Your task to perform on an android device: Search for the best rated kitchen reno kits on Lowes.com Image 0: 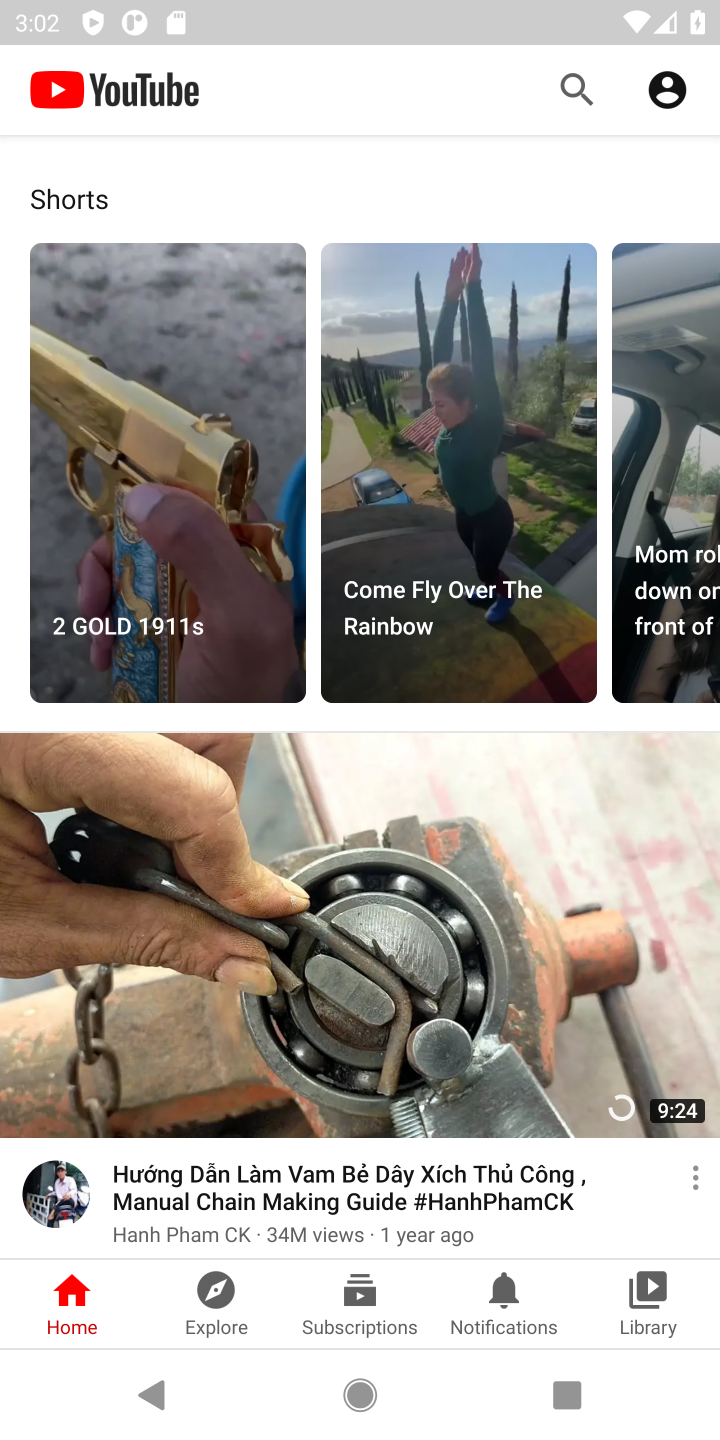
Step 0: press home button
Your task to perform on an android device: Search for the best rated kitchen reno kits on Lowes.com Image 1: 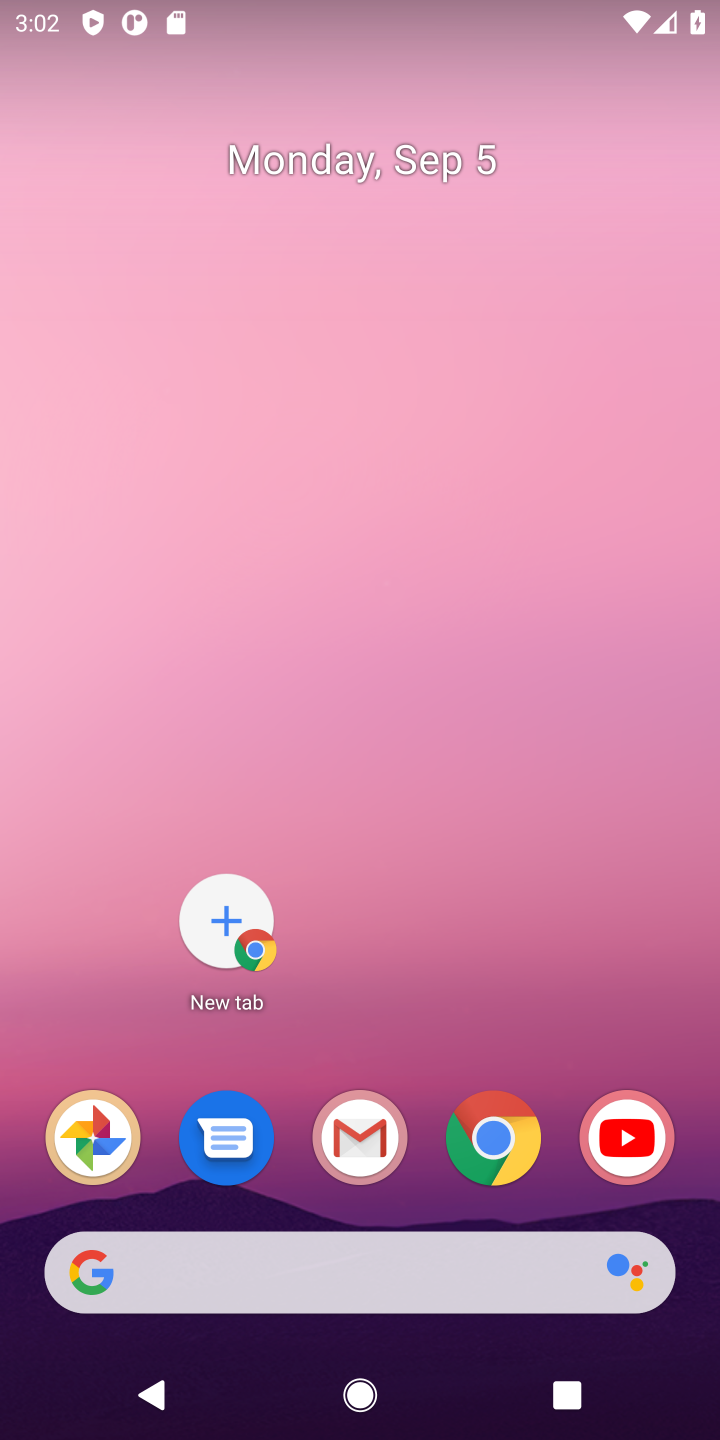
Step 1: click (525, 1147)
Your task to perform on an android device: Search for the best rated kitchen reno kits on Lowes.com Image 2: 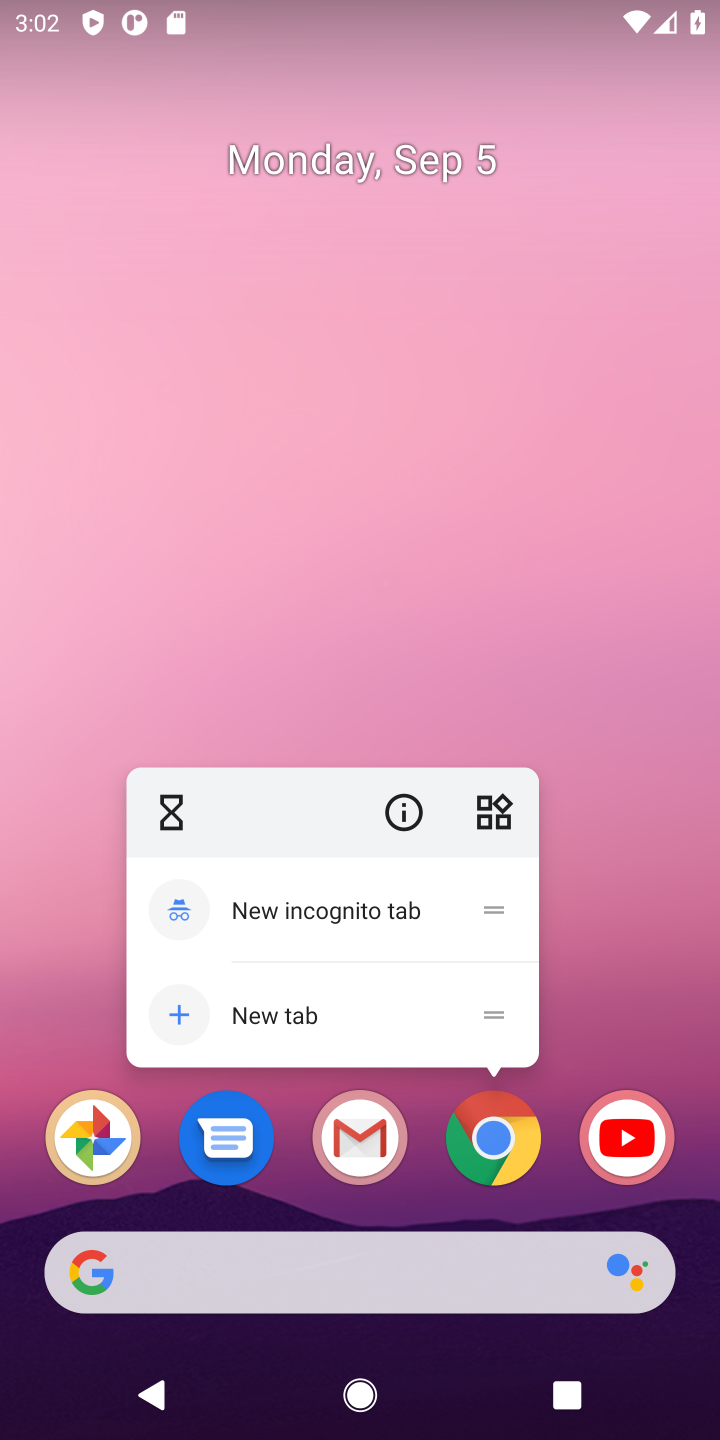
Step 2: click (516, 1131)
Your task to perform on an android device: Search for the best rated kitchen reno kits on Lowes.com Image 3: 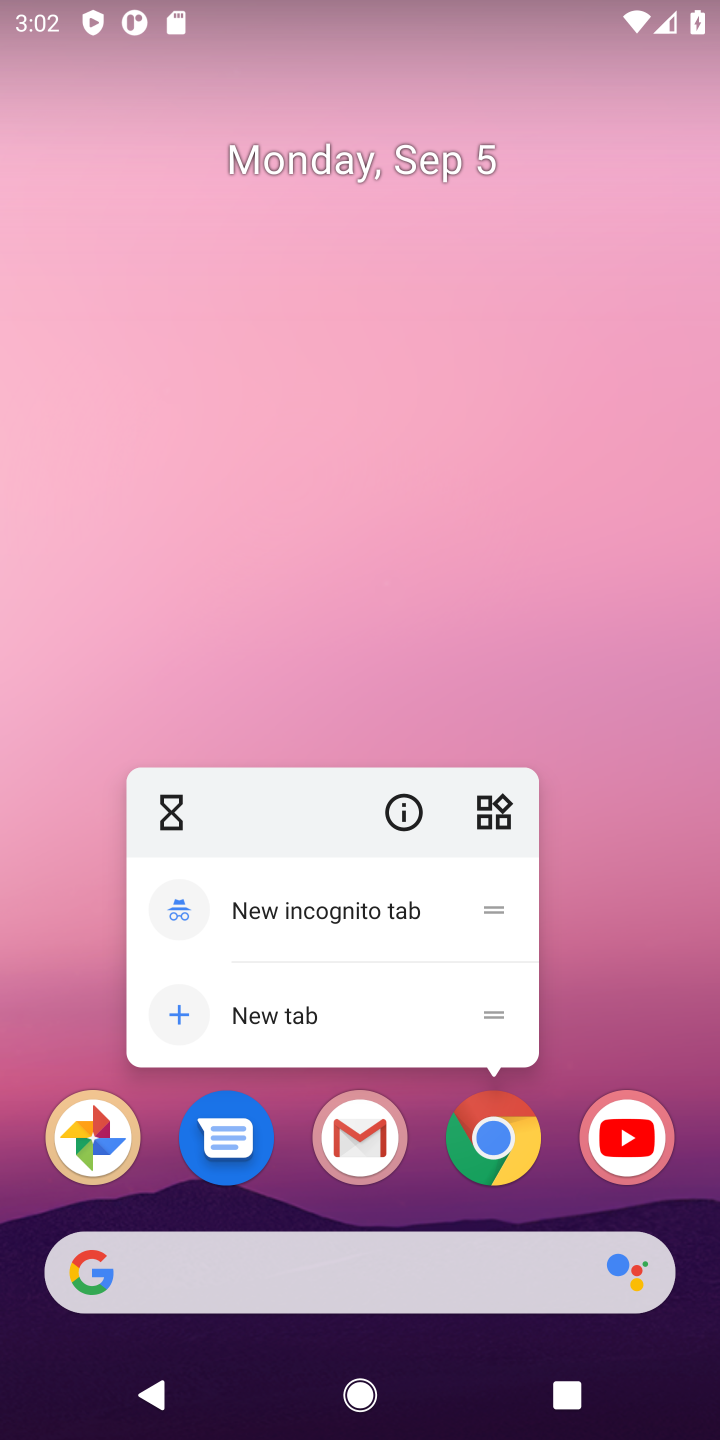
Step 3: click (497, 1142)
Your task to perform on an android device: Search for the best rated kitchen reno kits on Lowes.com Image 4: 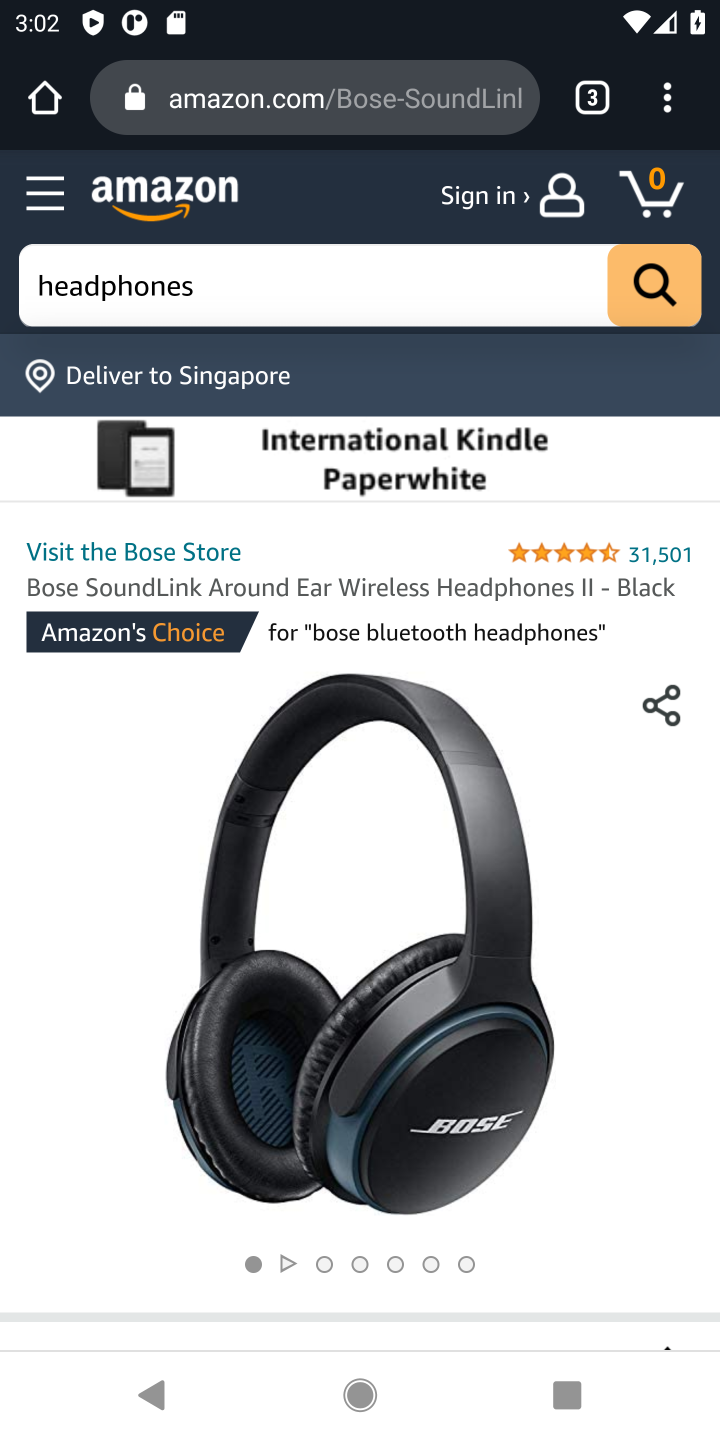
Step 4: click (183, 95)
Your task to perform on an android device: Search for the best rated kitchen reno kits on Lowes.com Image 5: 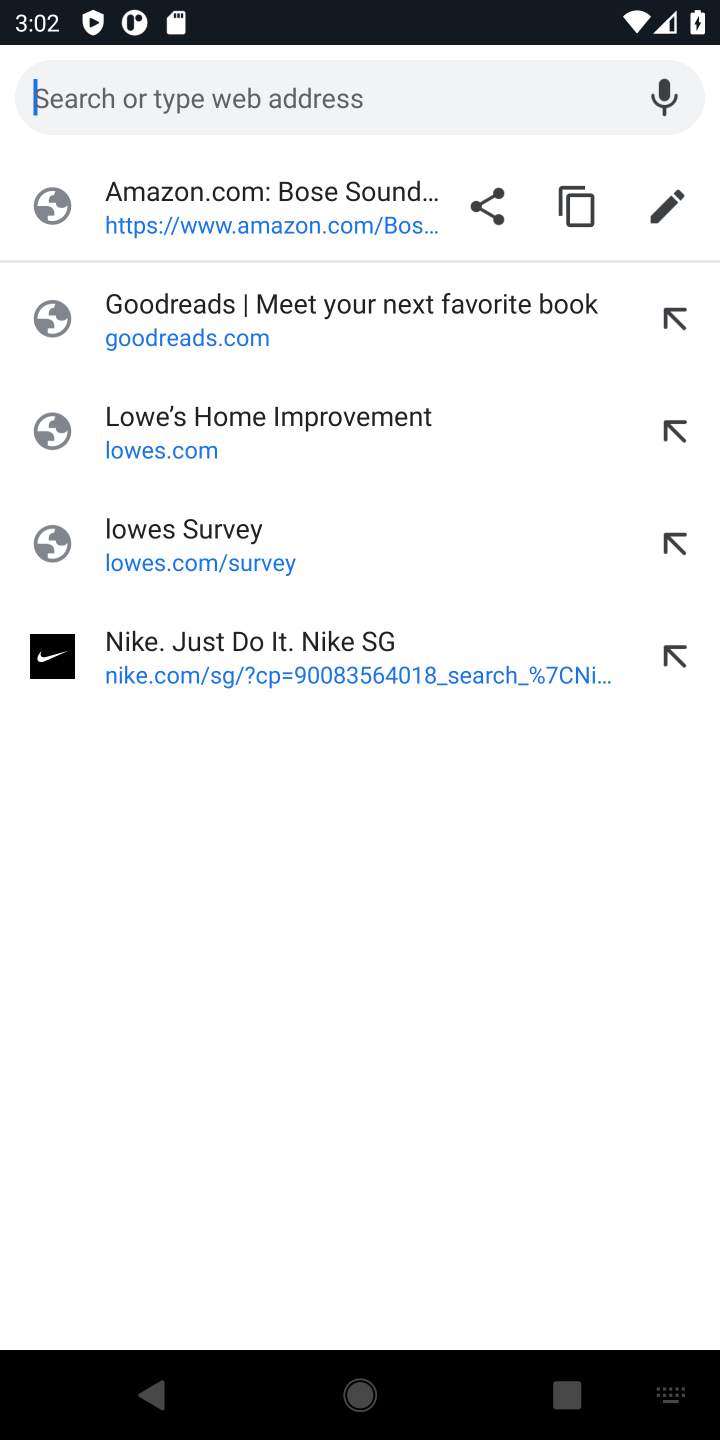
Step 5: type "lowes.com"
Your task to perform on an android device: Search for the best rated kitchen reno kits on Lowes.com Image 6: 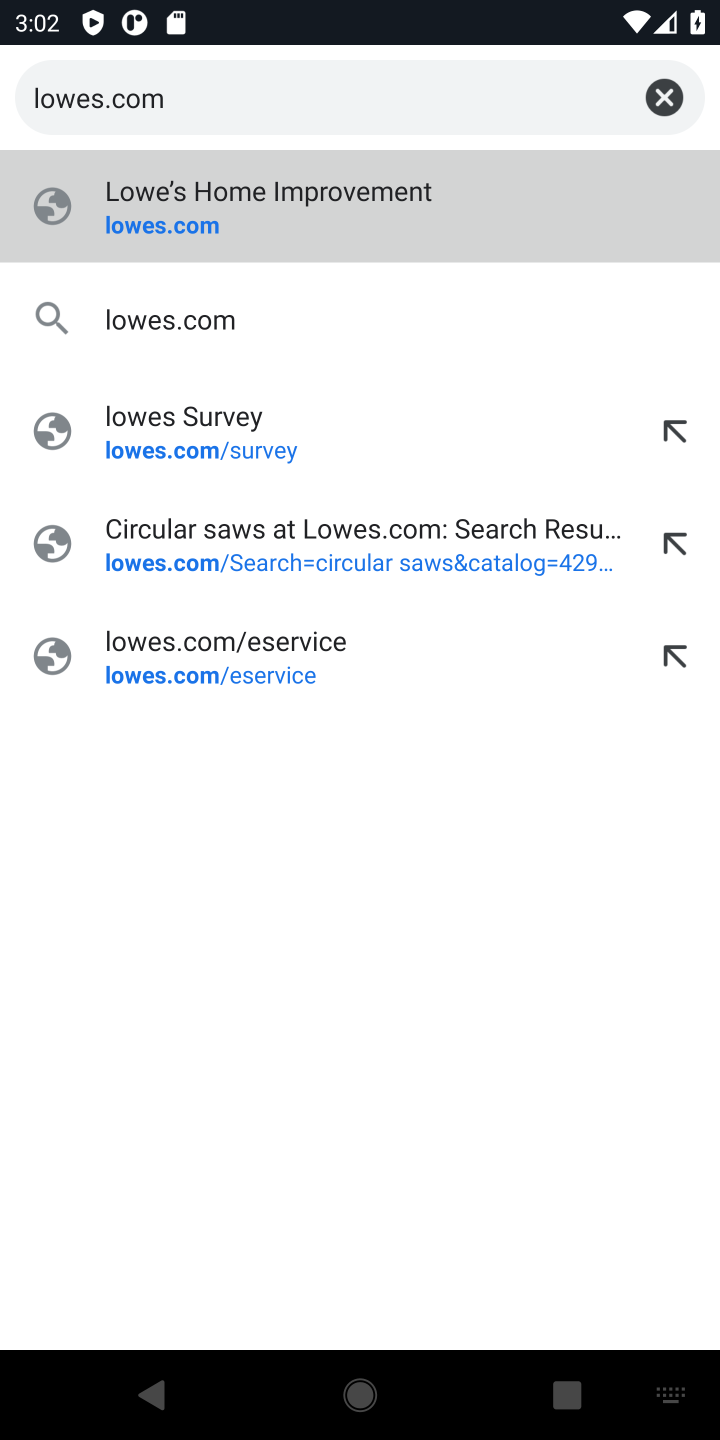
Step 6: click (164, 234)
Your task to perform on an android device: Search for the best rated kitchen reno kits on Lowes.com Image 7: 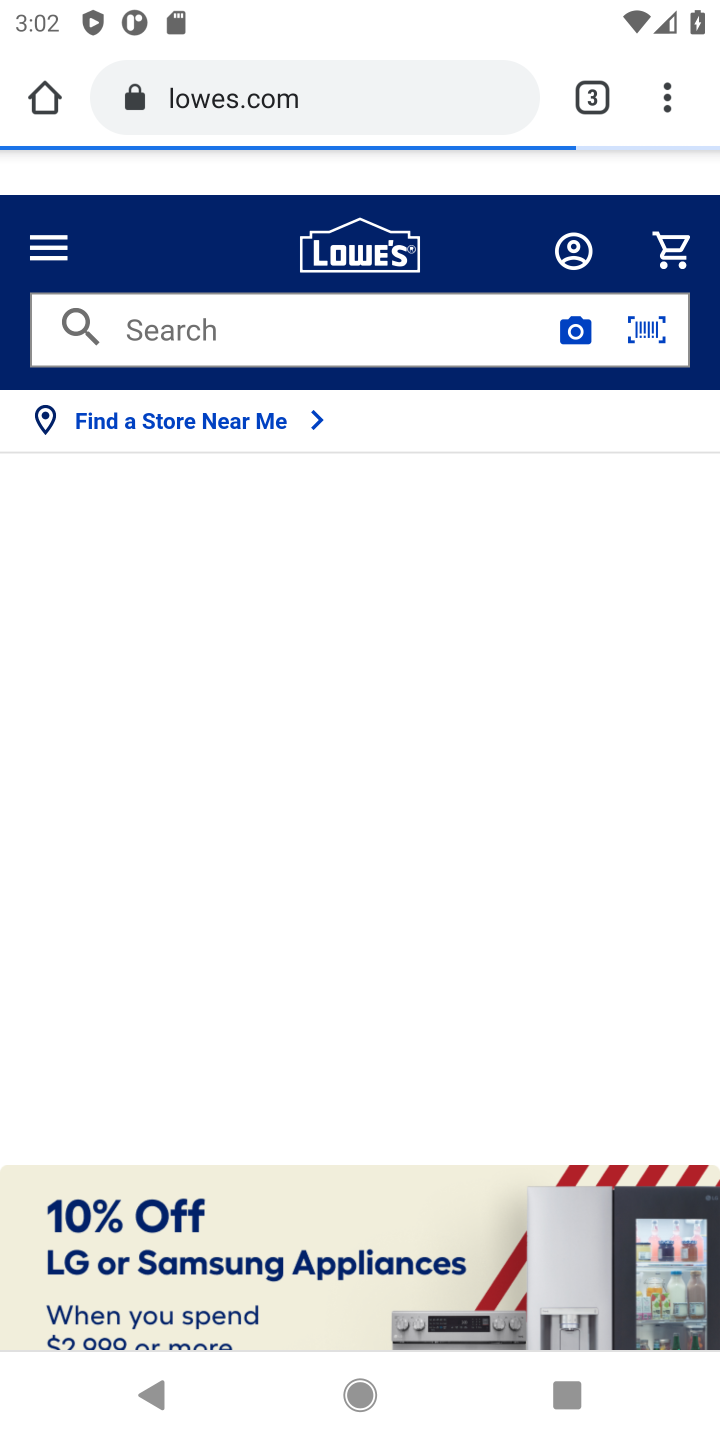
Step 7: click (243, 334)
Your task to perform on an android device: Search for the best rated kitchen reno kits on Lowes.com Image 8: 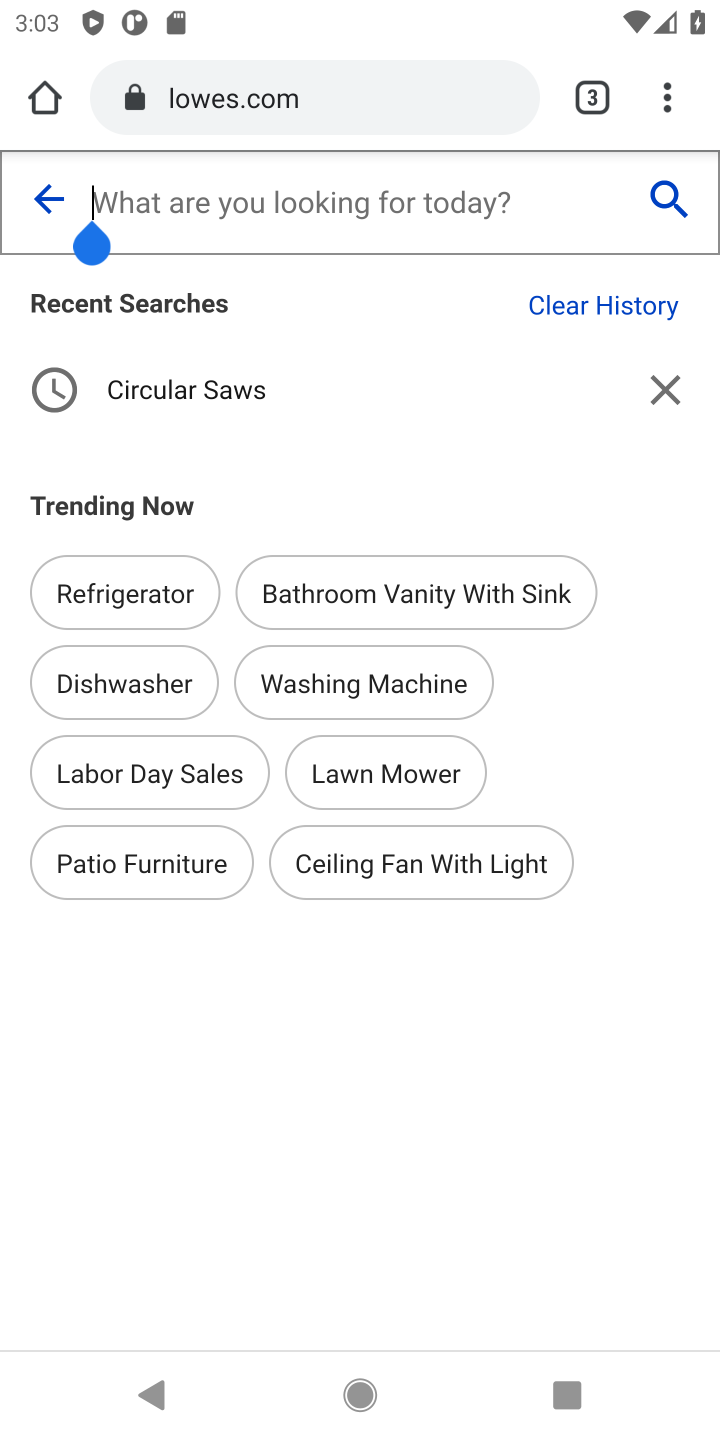
Step 8: type "kitchen reno kits"
Your task to perform on an android device: Search for the best rated kitchen reno kits on Lowes.com Image 9: 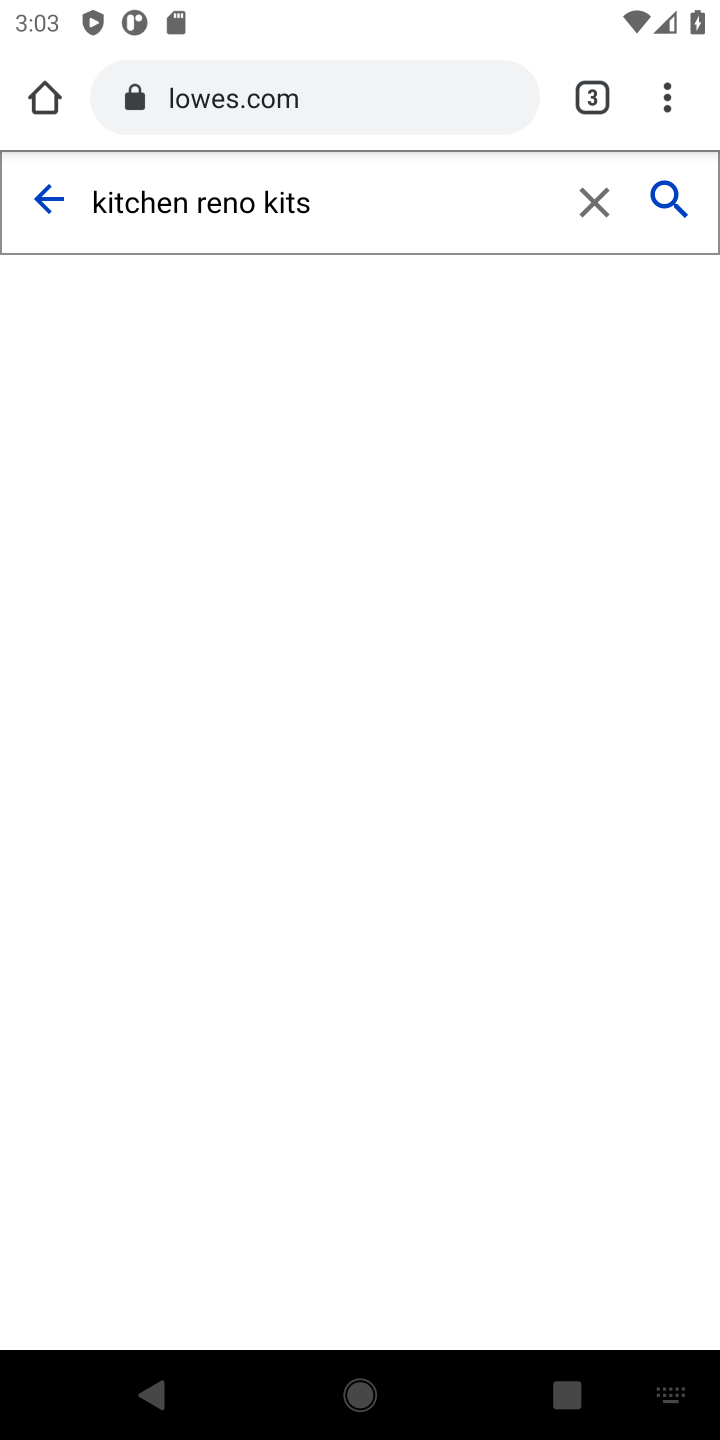
Step 9: type ""
Your task to perform on an android device: Search for the best rated kitchen reno kits on Lowes.com Image 10: 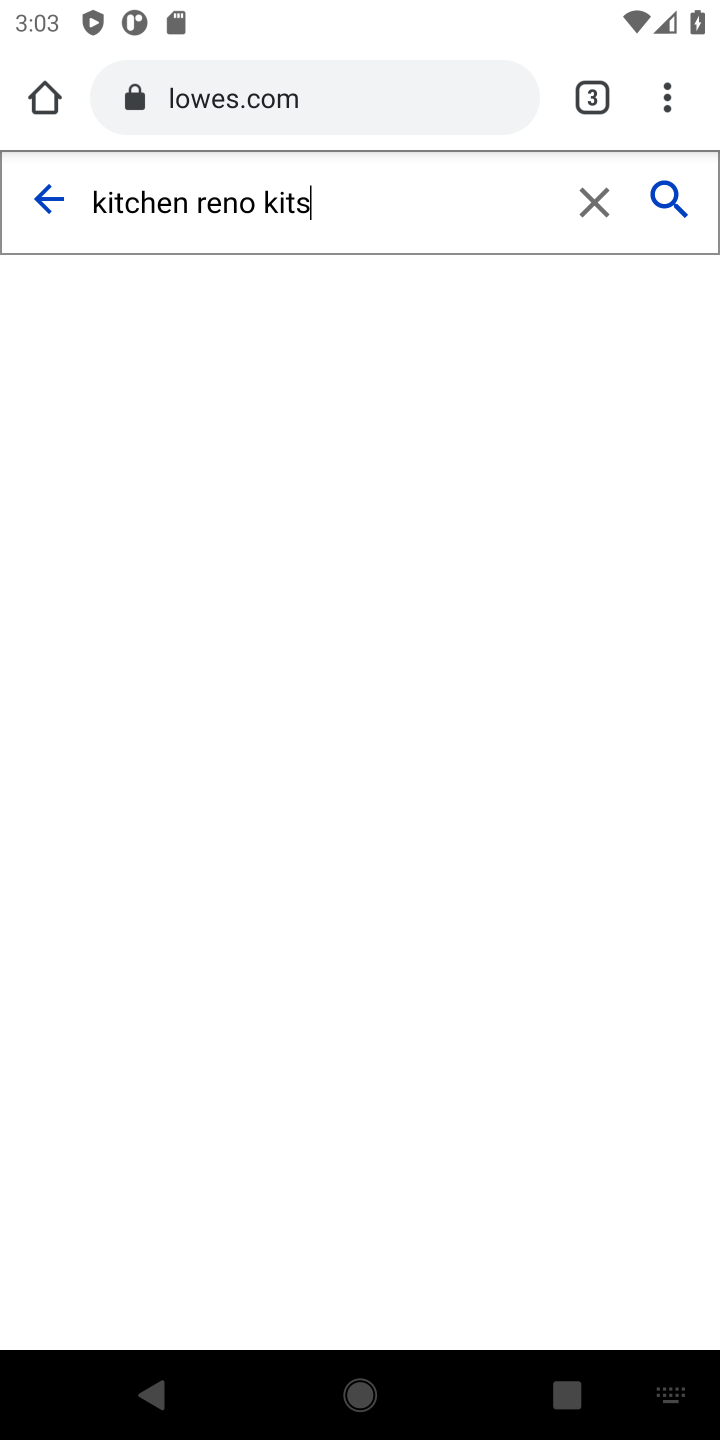
Step 10: press enter
Your task to perform on an android device: Search for the best rated kitchen reno kits on Lowes.com Image 11: 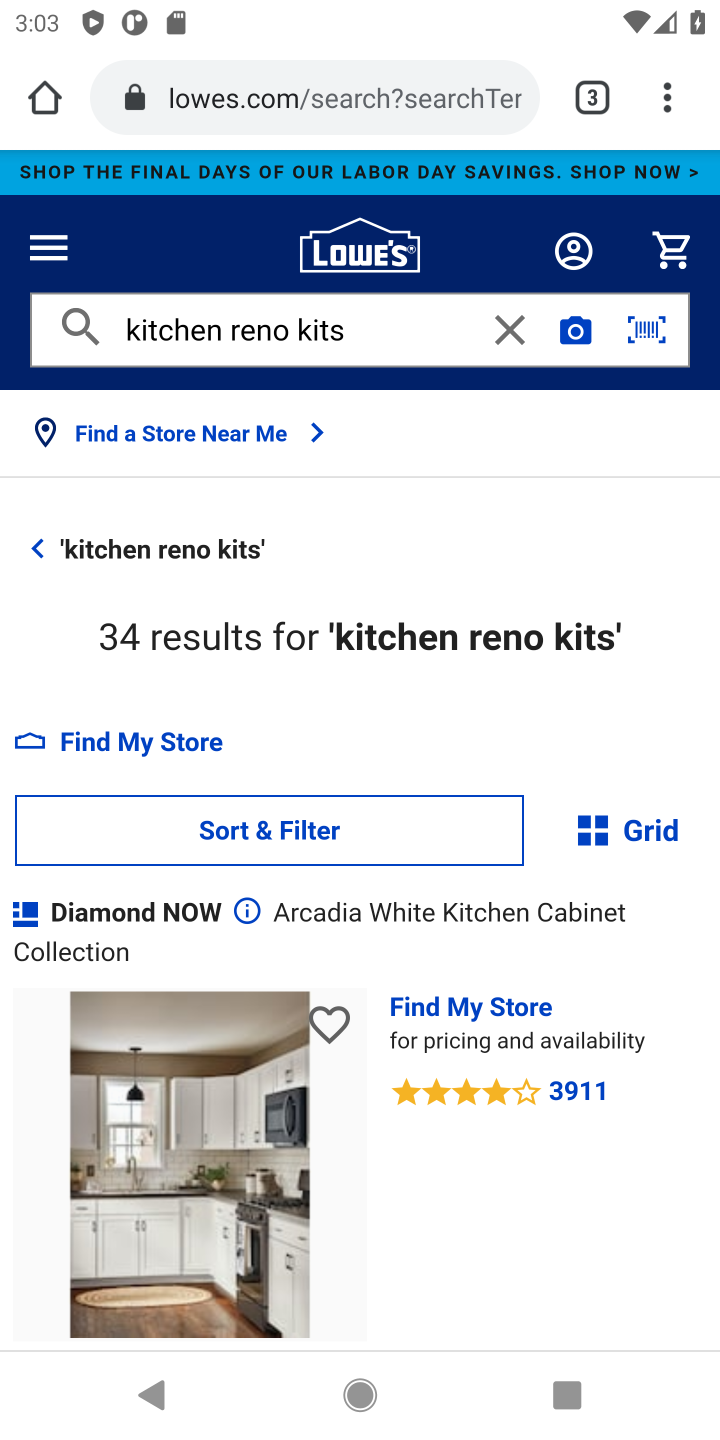
Step 11: click (300, 822)
Your task to perform on an android device: Search for the best rated kitchen reno kits on Lowes.com Image 12: 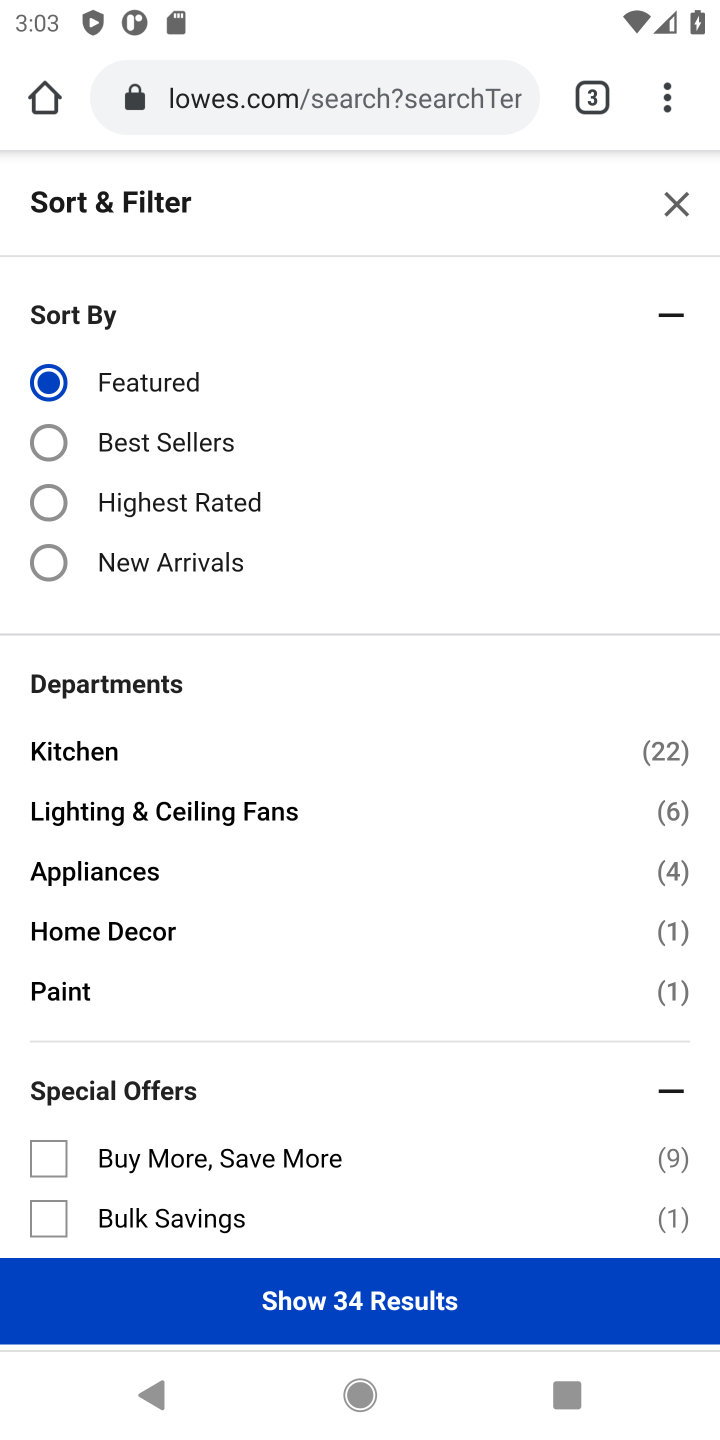
Step 12: click (453, 750)
Your task to perform on an android device: Search for the best rated kitchen reno kits on Lowes.com Image 13: 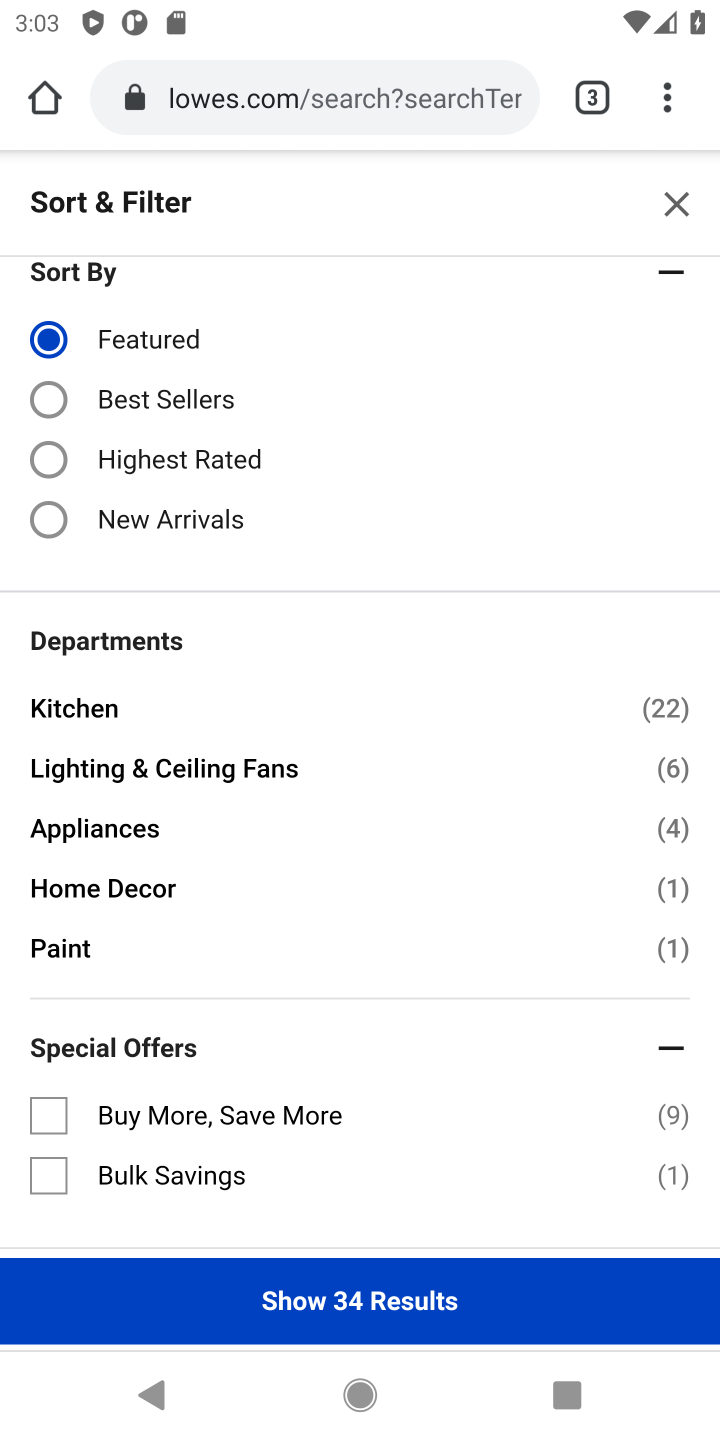
Step 13: click (40, 467)
Your task to perform on an android device: Search for the best rated kitchen reno kits on Lowes.com Image 14: 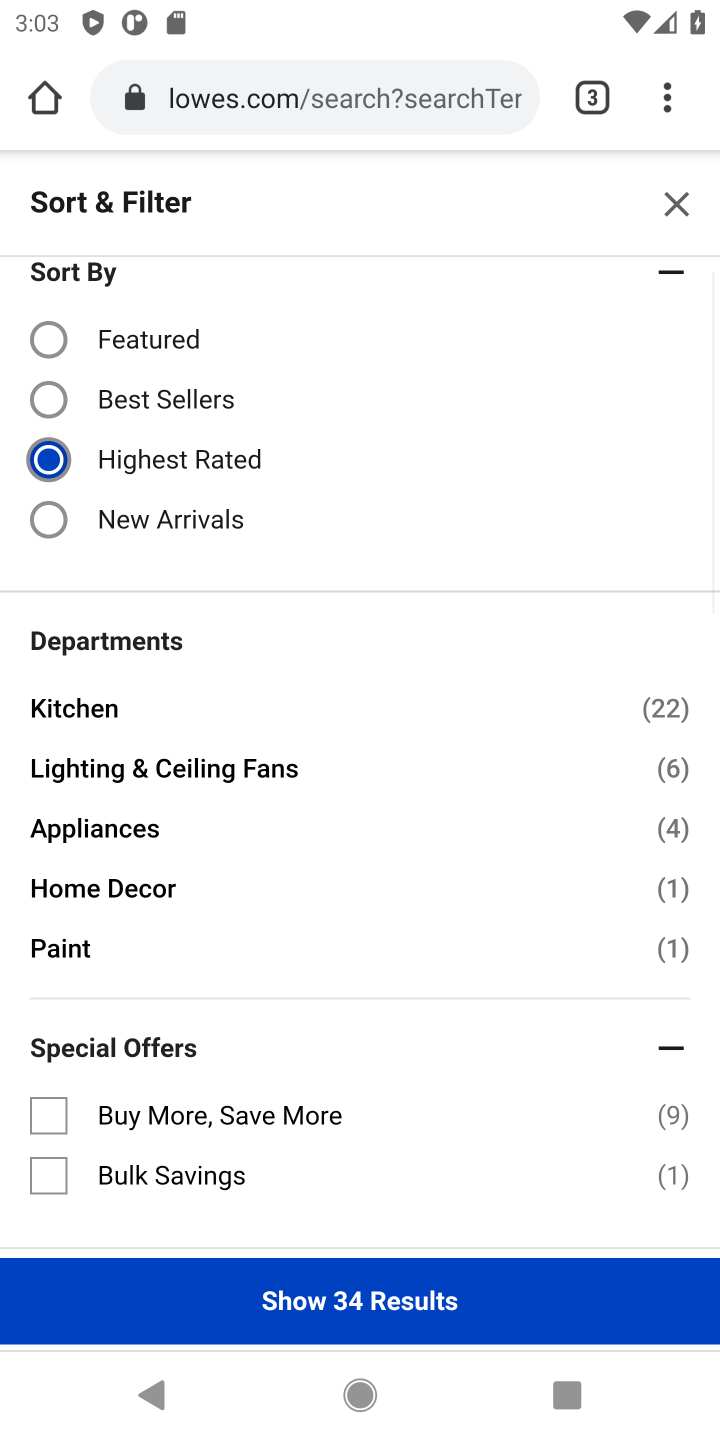
Step 14: drag from (434, 634) to (434, 559)
Your task to perform on an android device: Search for the best rated kitchen reno kits on Lowes.com Image 15: 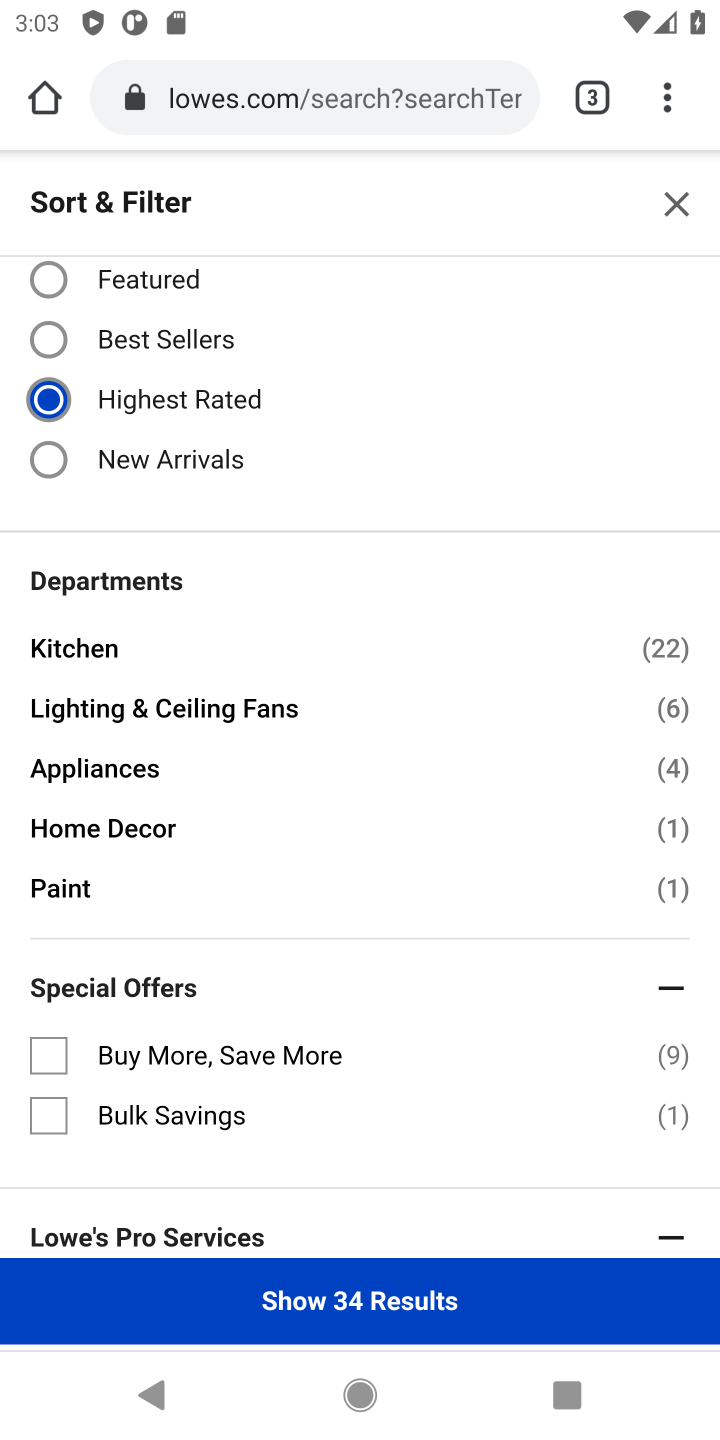
Step 15: drag from (391, 1025) to (398, 602)
Your task to perform on an android device: Search for the best rated kitchen reno kits on Lowes.com Image 16: 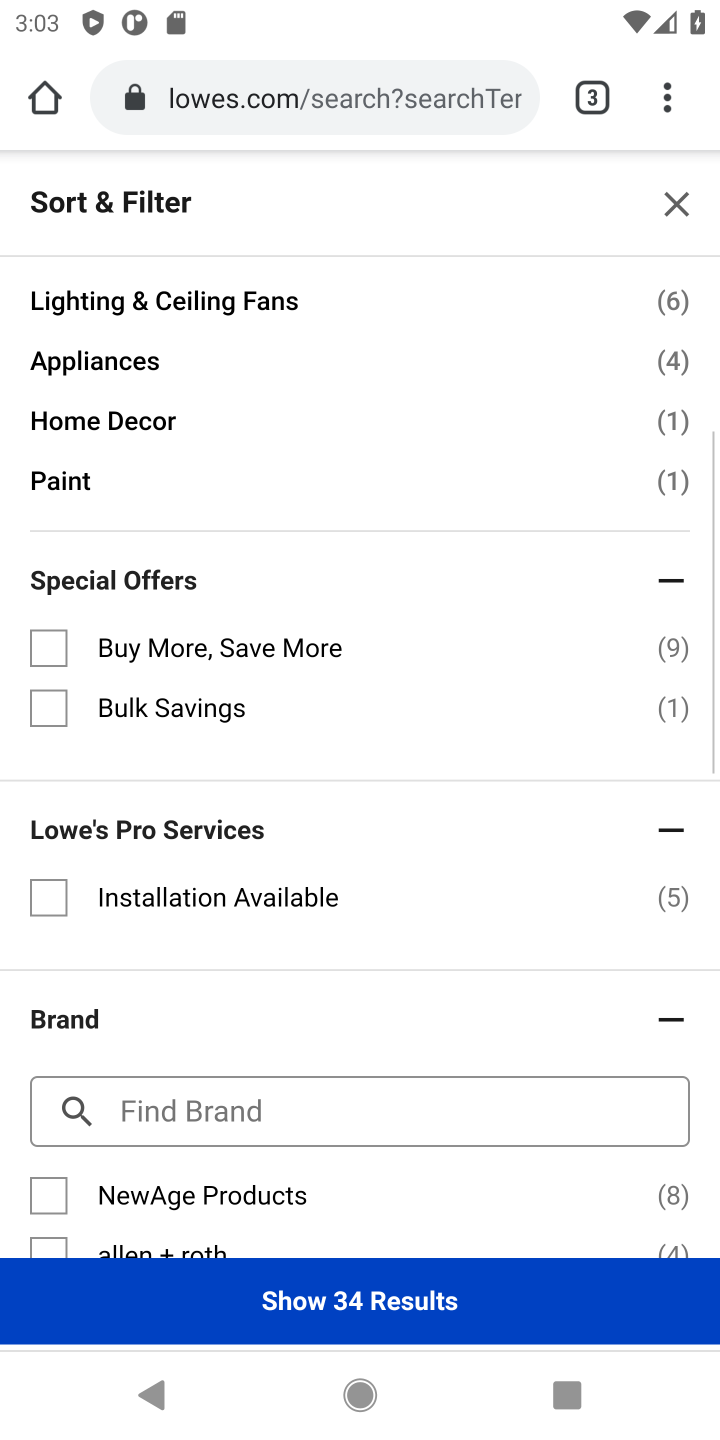
Step 16: drag from (428, 864) to (423, 491)
Your task to perform on an android device: Search for the best rated kitchen reno kits on Lowes.com Image 17: 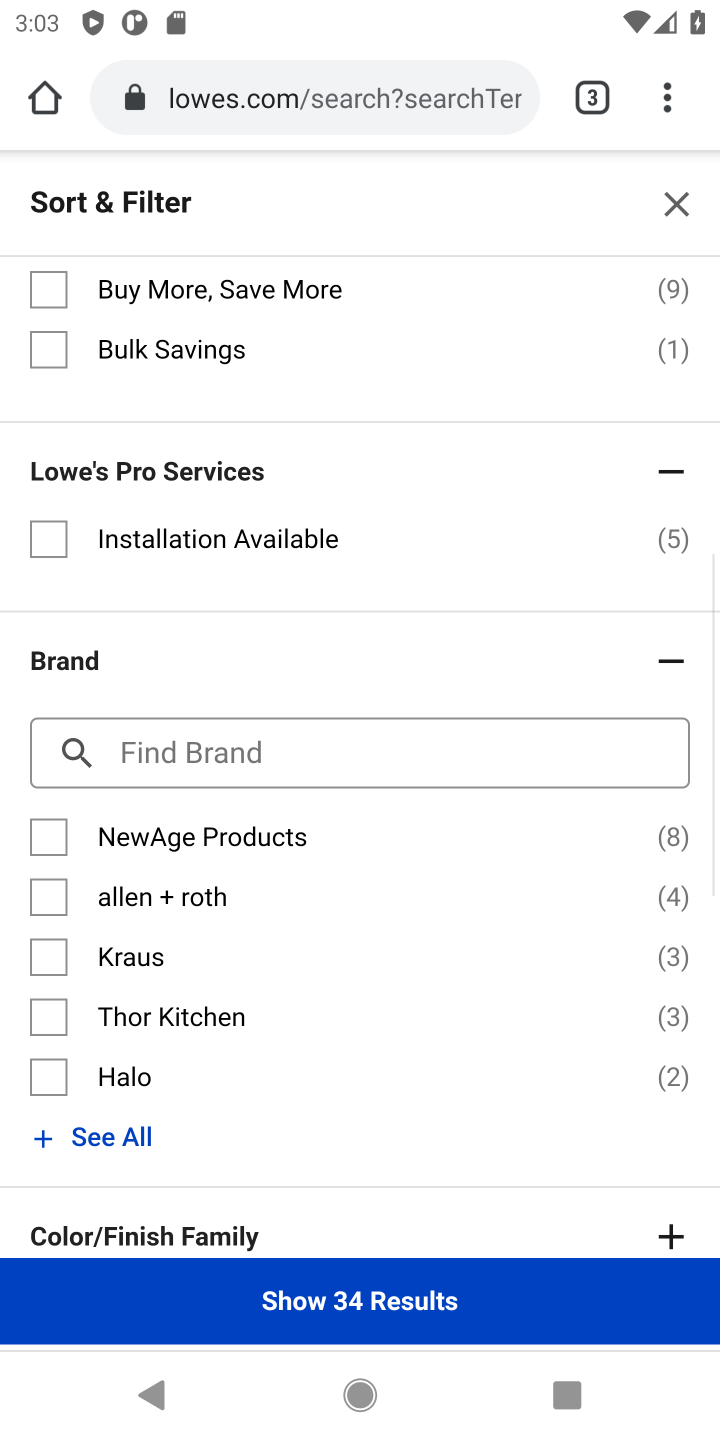
Step 17: drag from (375, 1022) to (413, 498)
Your task to perform on an android device: Search for the best rated kitchen reno kits on Lowes.com Image 18: 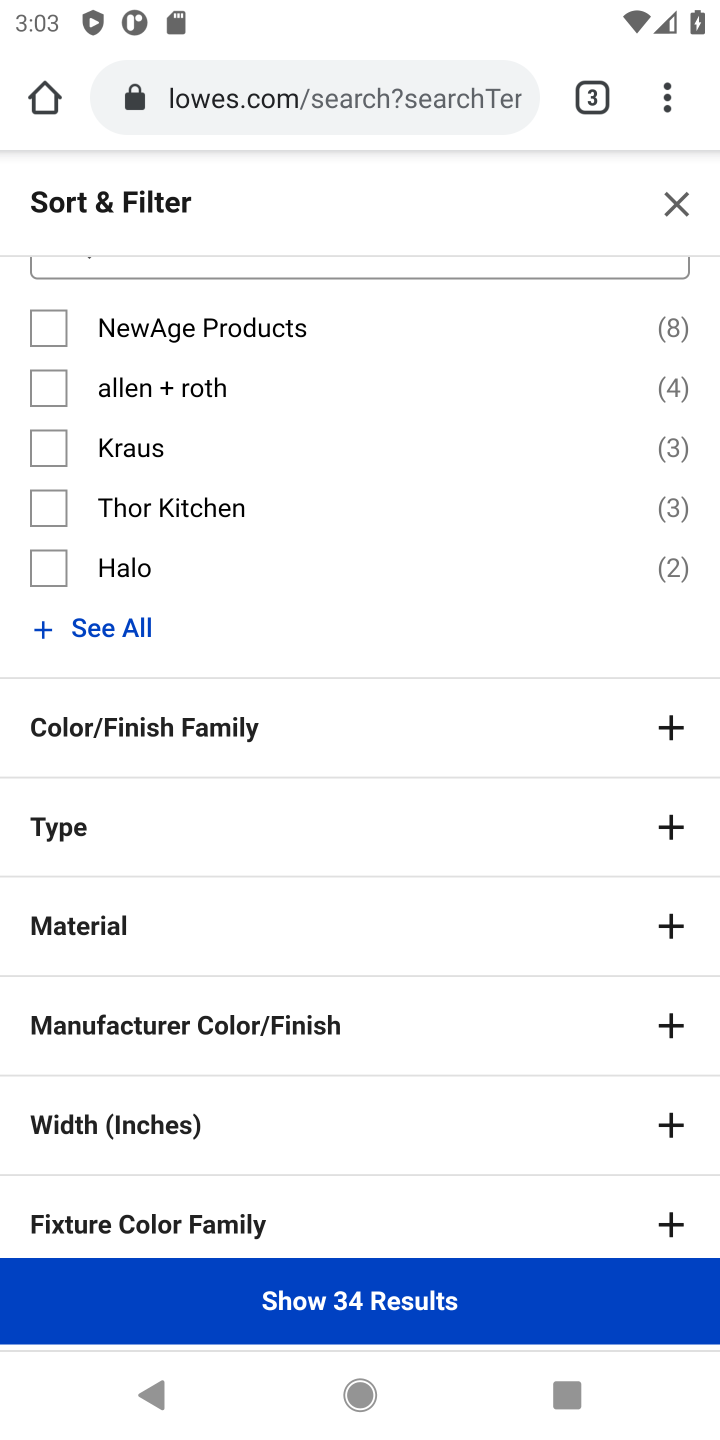
Step 18: drag from (368, 957) to (392, 581)
Your task to perform on an android device: Search for the best rated kitchen reno kits on Lowes.com Image 19: 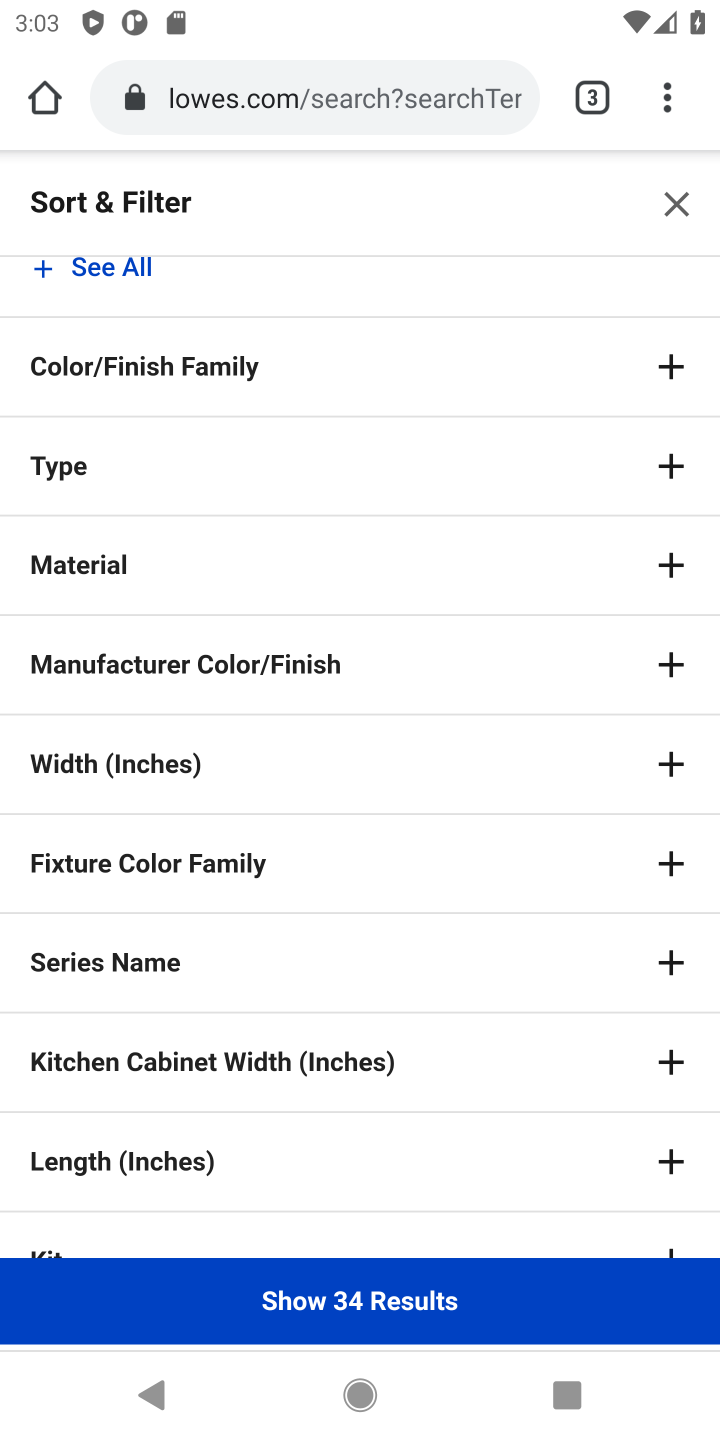
Step 19: drag from (406, 964) to (398, 423)
Your task to perform on an android device: Search for the best rated kitchen reno kits on Lowes.com Image 20: 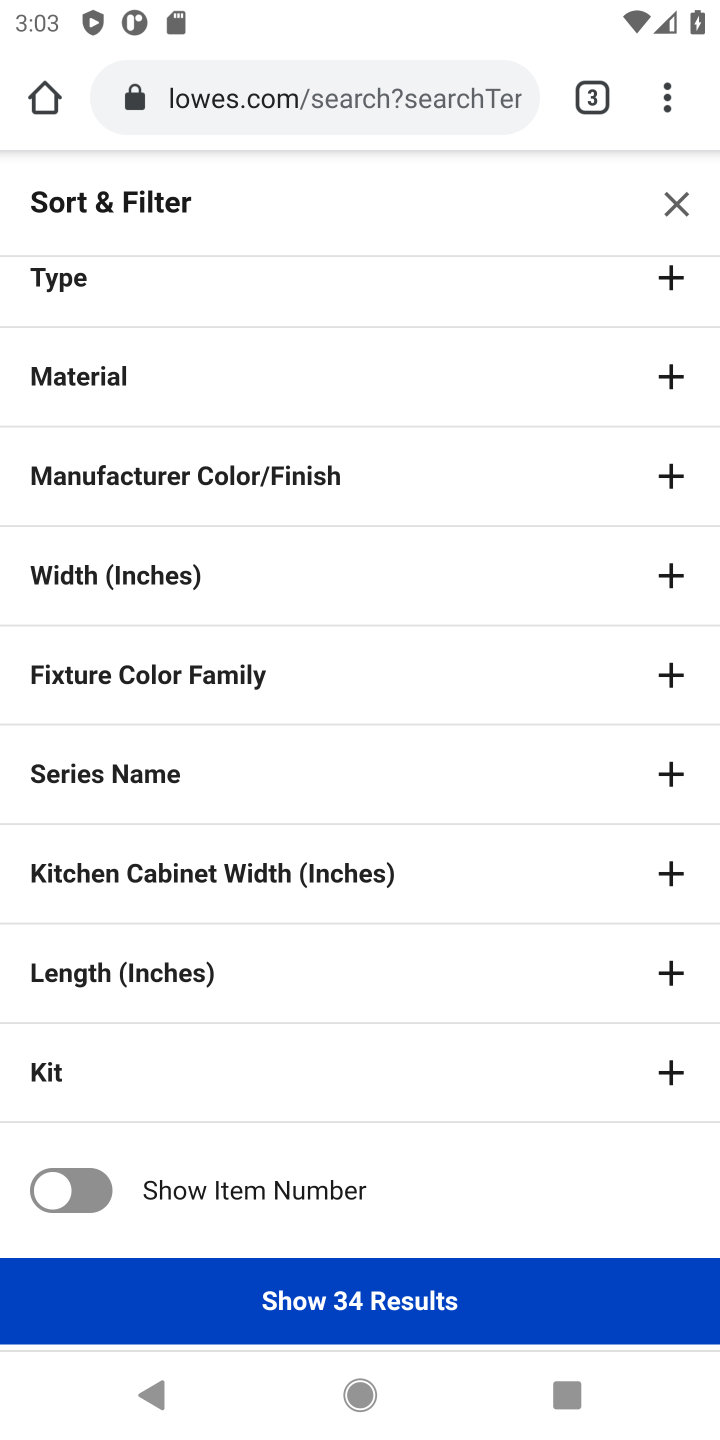
Step 20: drag from (435, 1112) to (440, 534)
Your task to perform on an android device: Search for the best rated kitchen reno kits on Lowes.com Image 21: 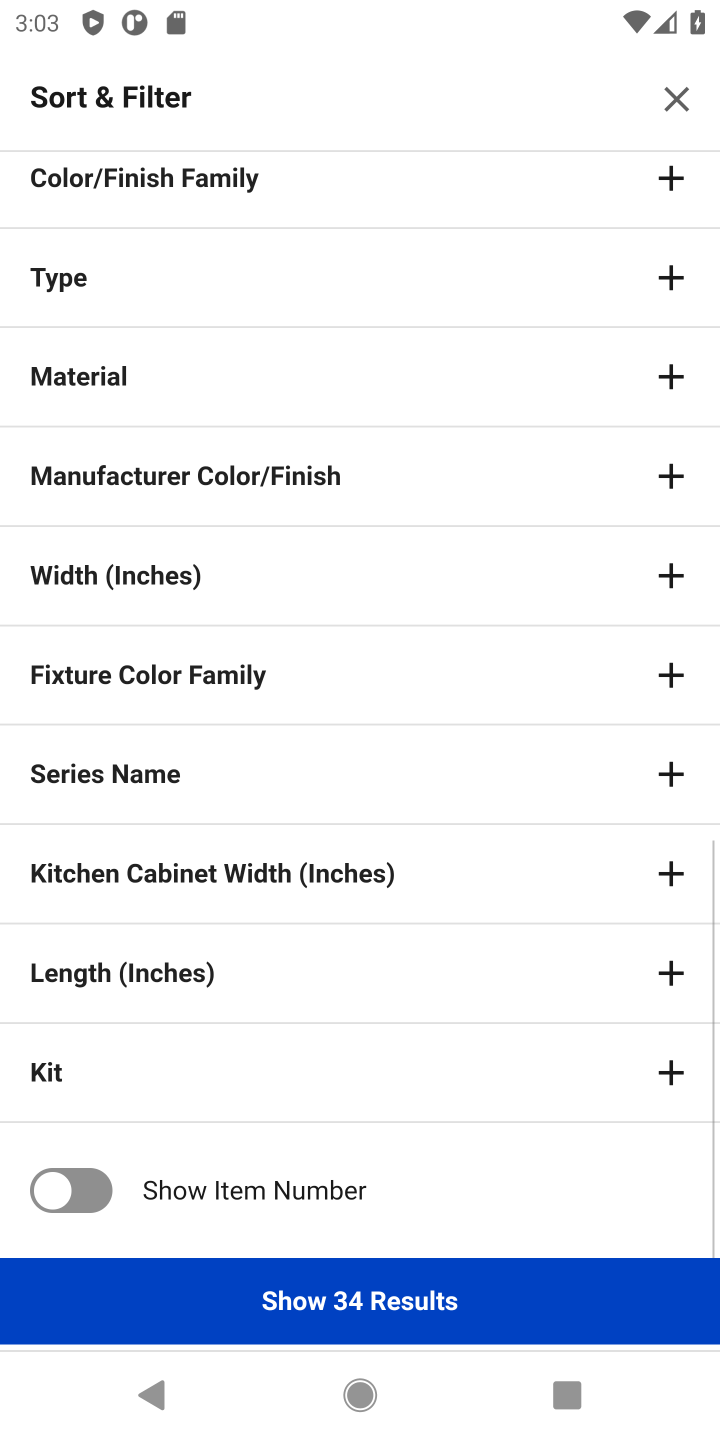
Step 21: click (383, 1201)
Your task to perform on an android device: Search for the best rated kitchen reno kits on Lowes.com Image 22: 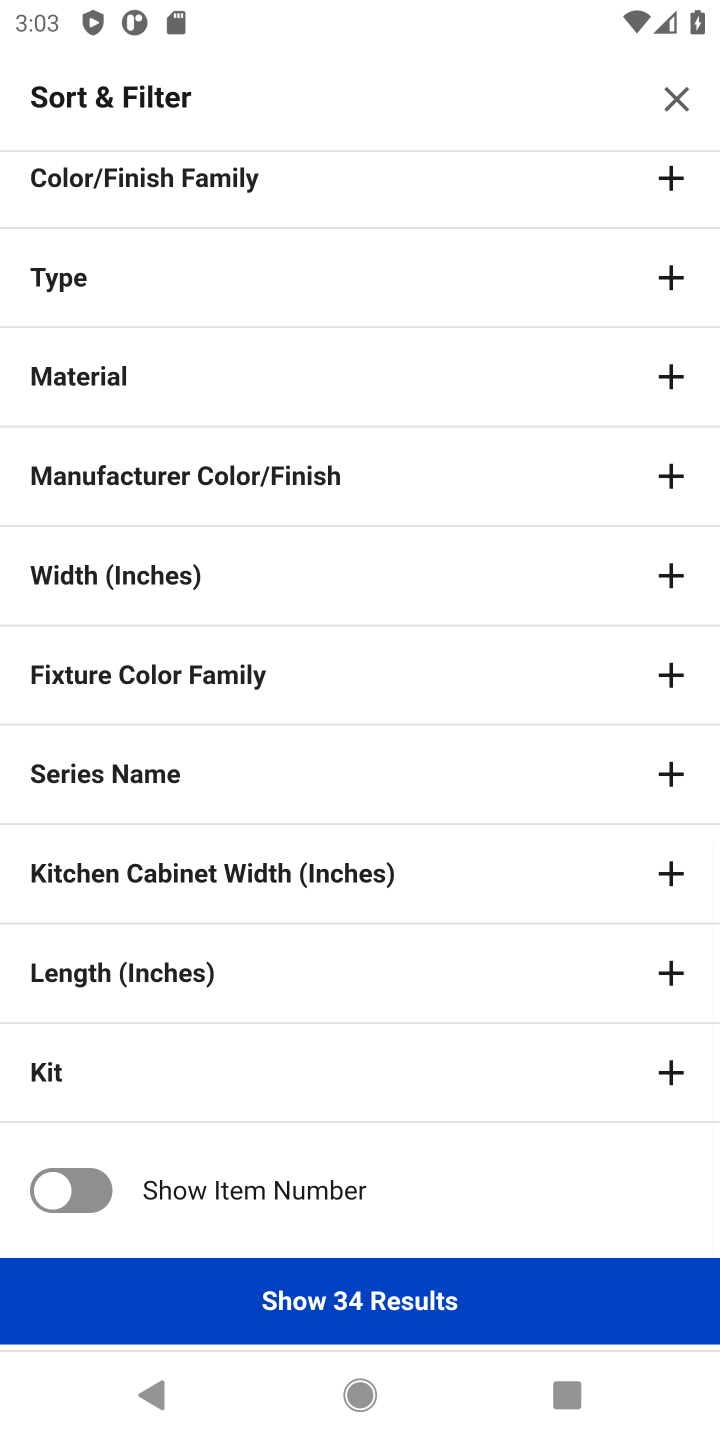
Step 22: click (415, 1291)
Your task to perform on an android device: Search for the best rated kitchen reno kits on Lowes.com Image 23: 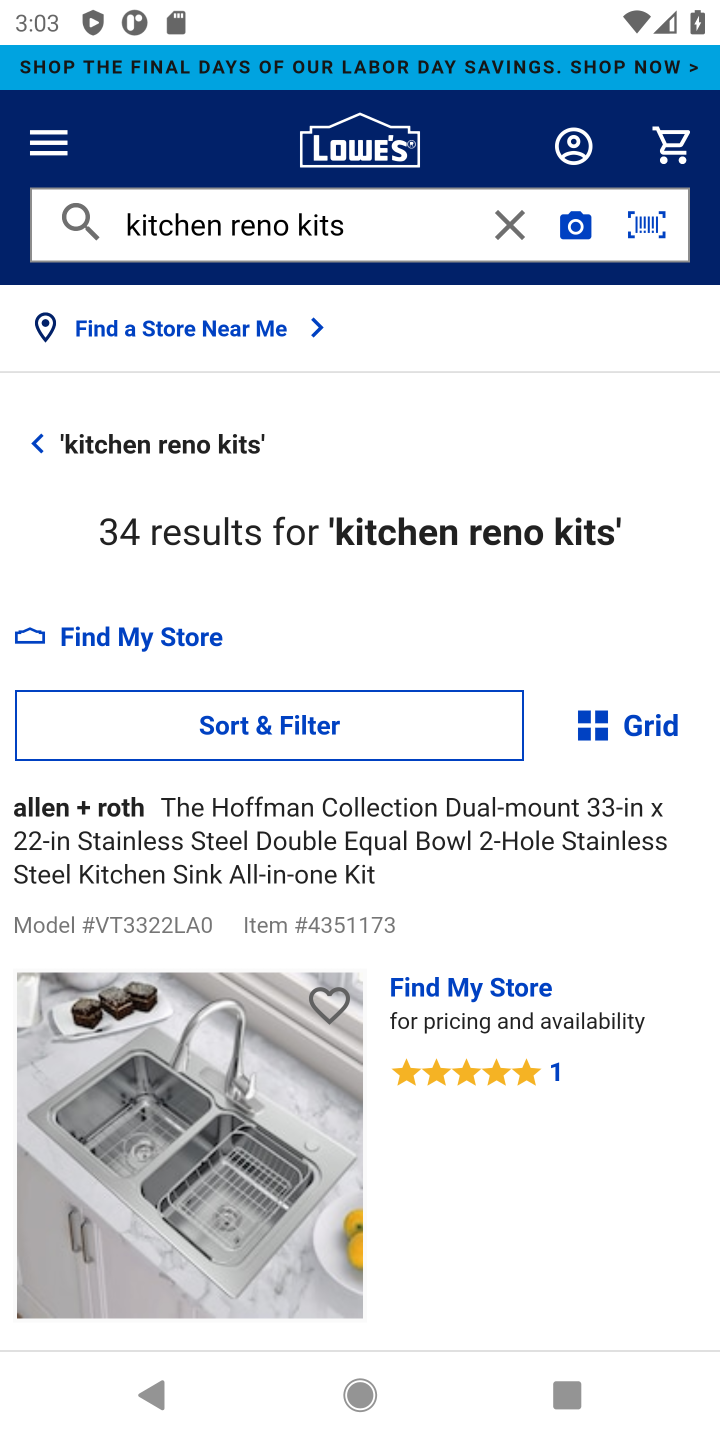
Step 23: click (511, 865)
Your task to perform on an android device: Search for the best rated kitchen reno kits on Lowes.com Image 24: 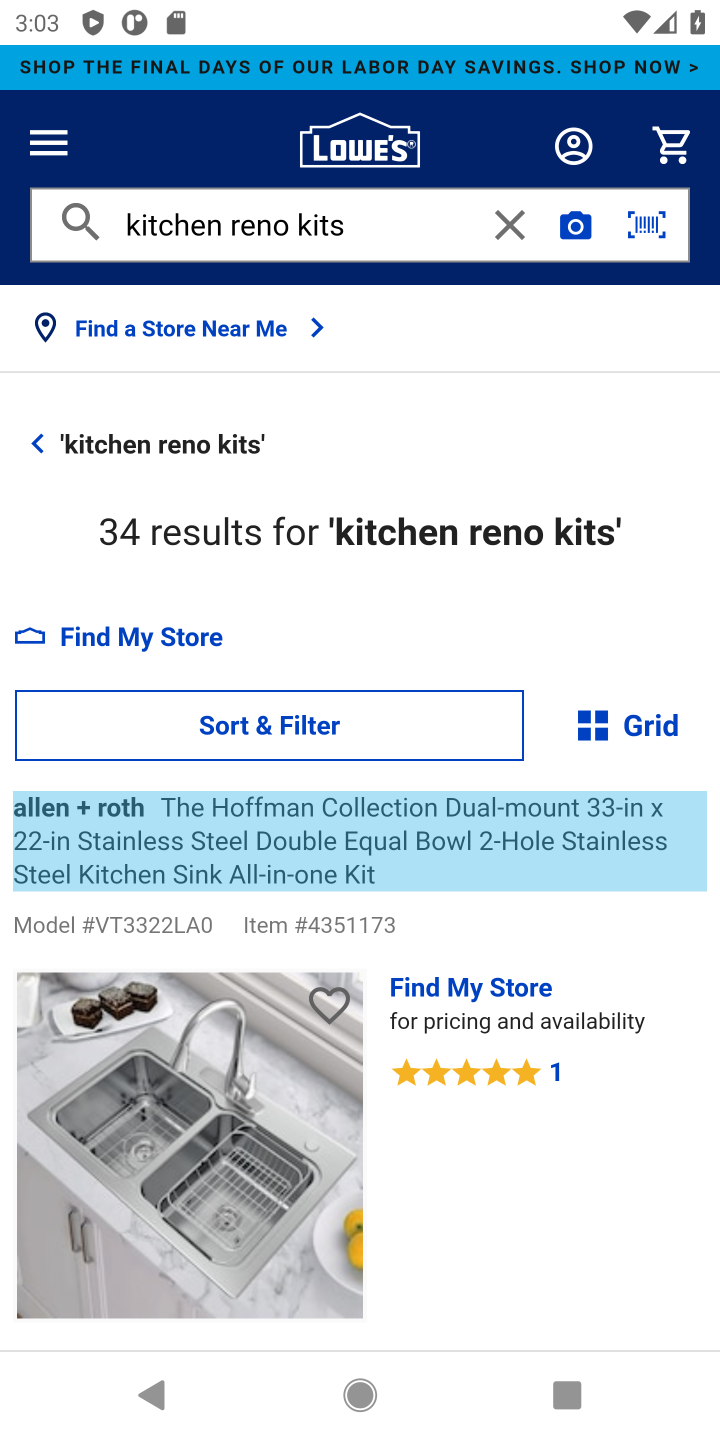
Step 24: task complete